Your task to perform on an android device: turn on translation in the chrome app Image 0: 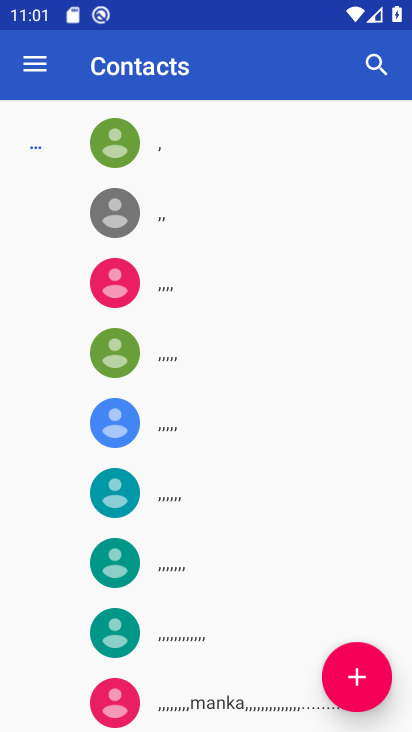
Step 0: press home button
Your task to perform on an android device: turn on translation in the chrome app Image 1: 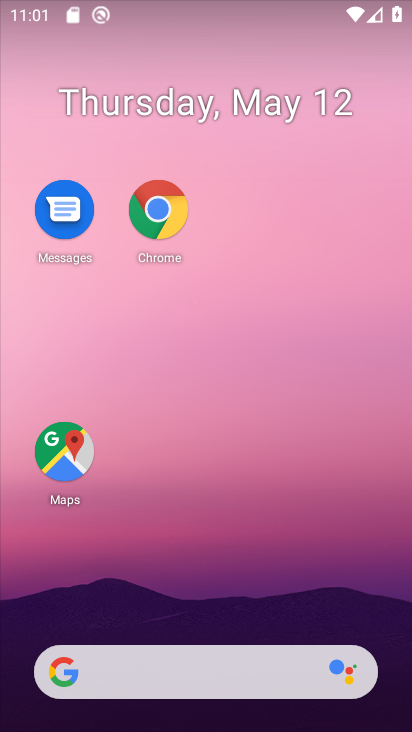
Step 1: click (167, 212)
Your task to perform on an android device: turn on translation in the chrome app Image 2: 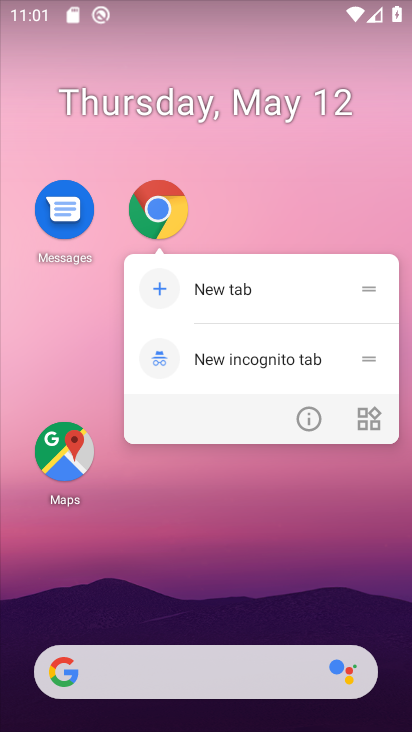
Step 2: click (170, 230)
Your task to perform on an android device: turn on translation in the chrome app Image 3: 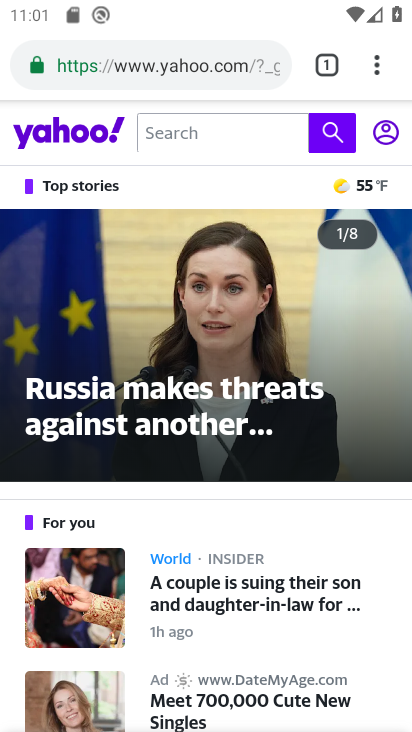
Step 3: click (380, 61)
Your task to perform on an android device: turn on translation in the chrome app Image 4: 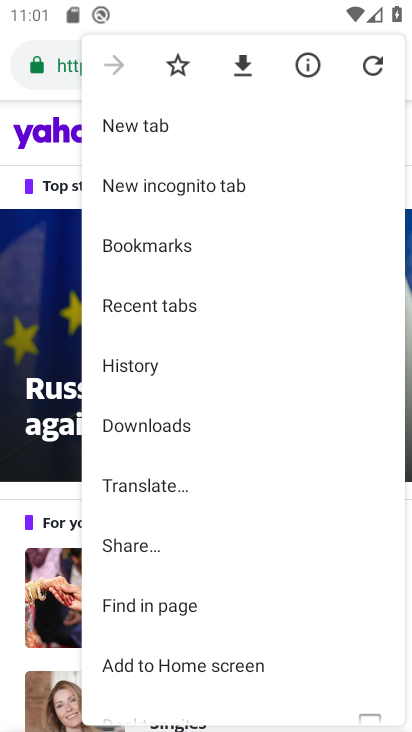
Step 4: drag from (148, 559) to (216, 153)
Your task to perform on an android device: turn on translation in the chrome app Image 5: 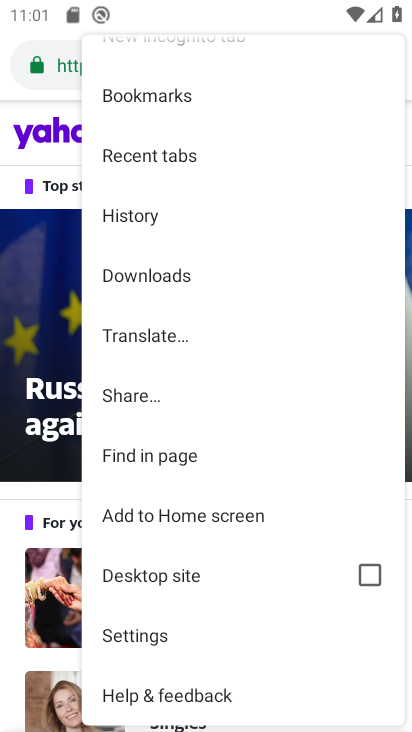
Step 5: click (141, 649)
Your task to perform on an android device: turn on translation in the chrome app Image 6: 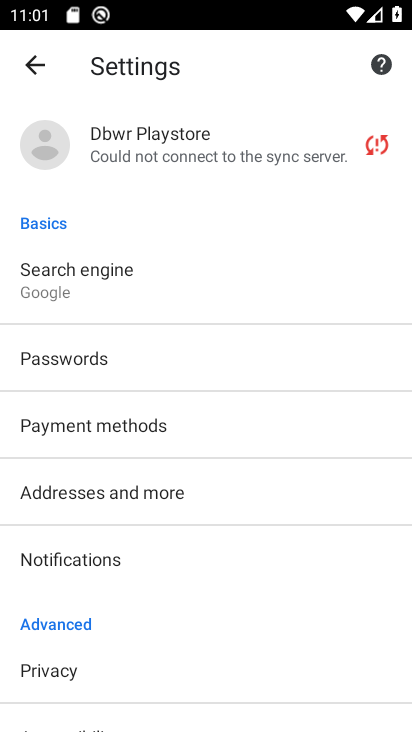
Step 6: drag from (141, 649) to (185, 241)
Your task to perform on an android device: turn on translation in the chrome app Image 7: 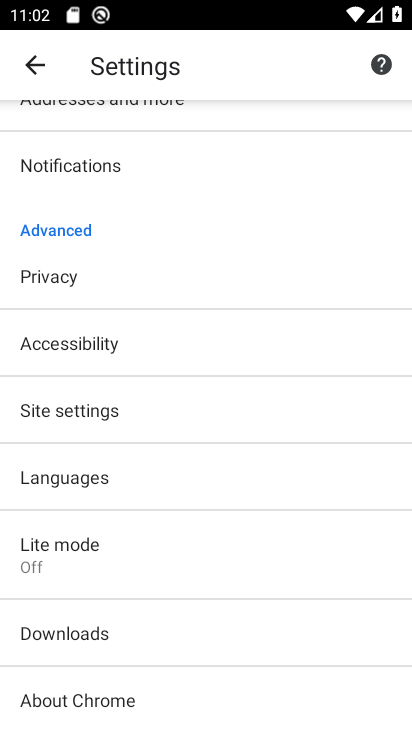
Step 7: click (104, 476)
Your task to perform on an android device: turn on translation in the chrome app Image 8: 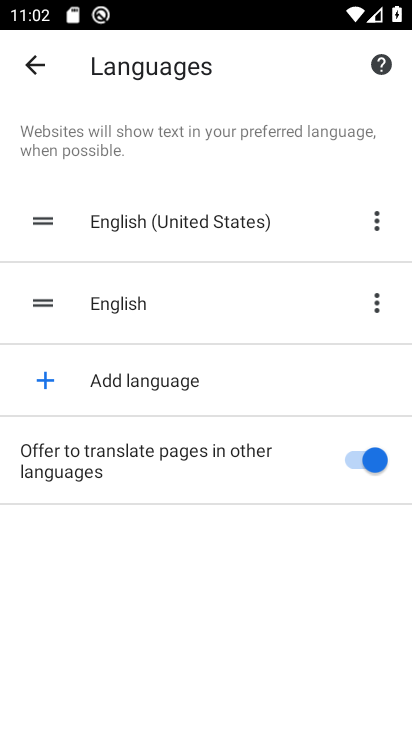
Step 8: task complete